Your task to perform on an android device: turn on the 12-hour format for clock Image 0: 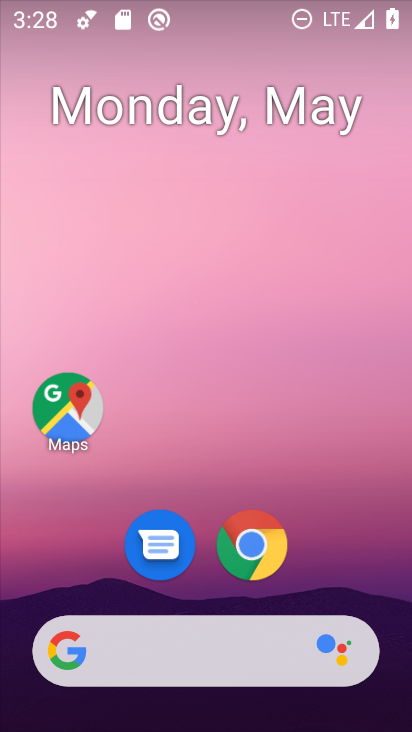
Step 0: drag from (330, 581) to (306, 154)
Your task to perform on an android device: turn on the 12-hour format for clock Image 1: 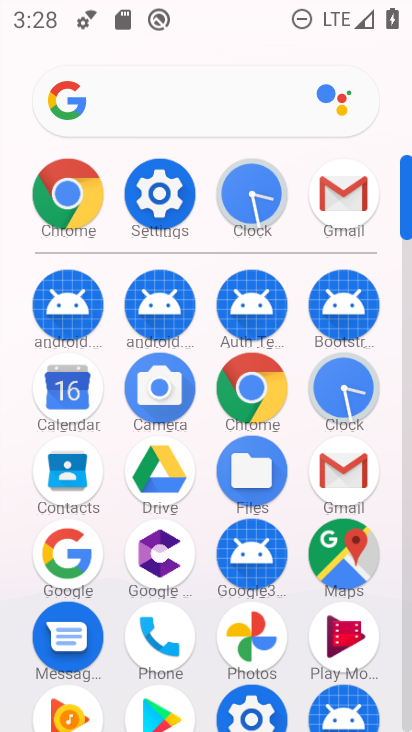
Step 1: click (345, 402)
Your task to perform on an android device: turn on the 12-hour format for clock Image 2: 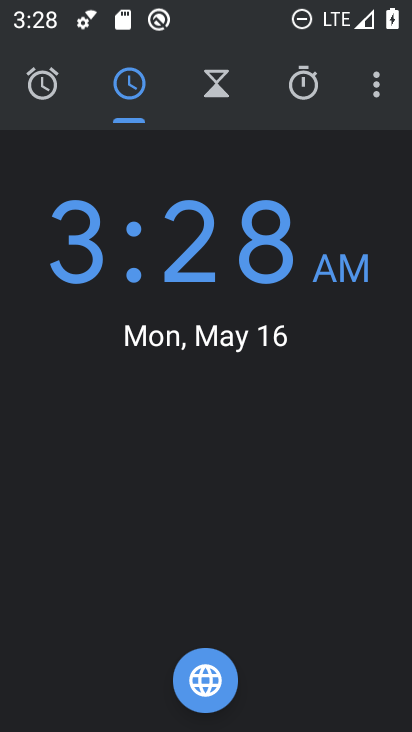
Step 2: click (369, 93)
Your task to perform on an android device: turn on the 12-hour format for clock Image 3: 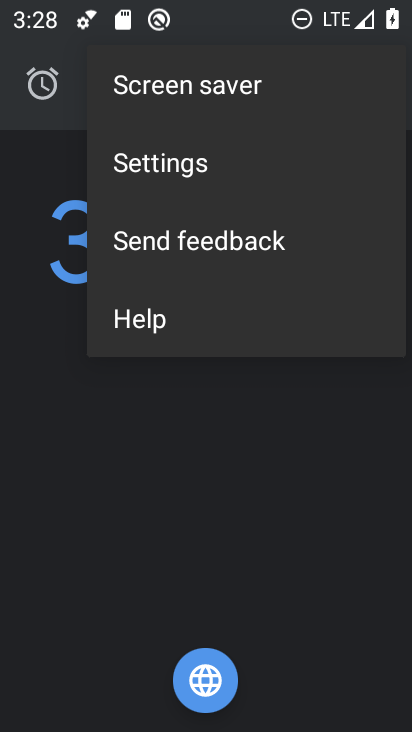
Step 3: click (196, 183)
Your task to perform on an android device: turn on the 12-hour format for clock Image 4: 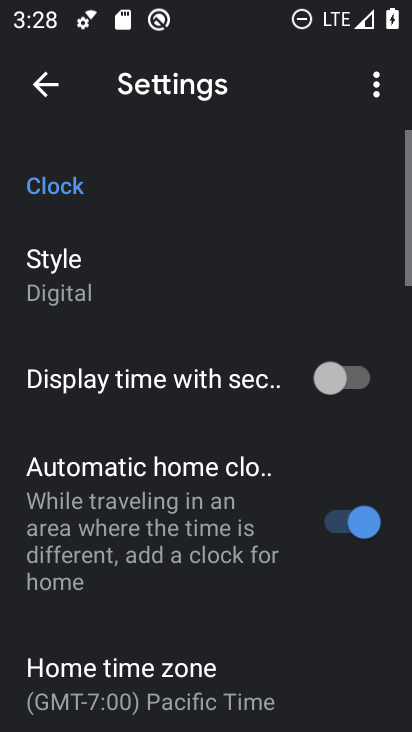
Step 4: drag from (252, 664) to (254, 304)
Your task to perform on an android device: turn on the 12-hour format for clock Image 5: 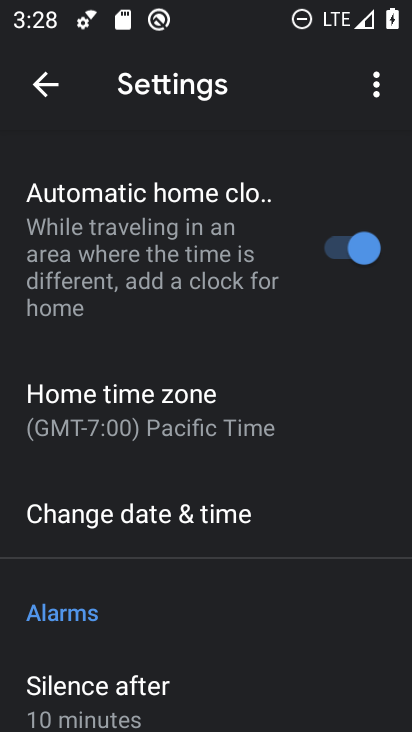
Step 5: click (209, 526)
Your task to perform on an android device: turn on the 12-hour format for clock Image 6: 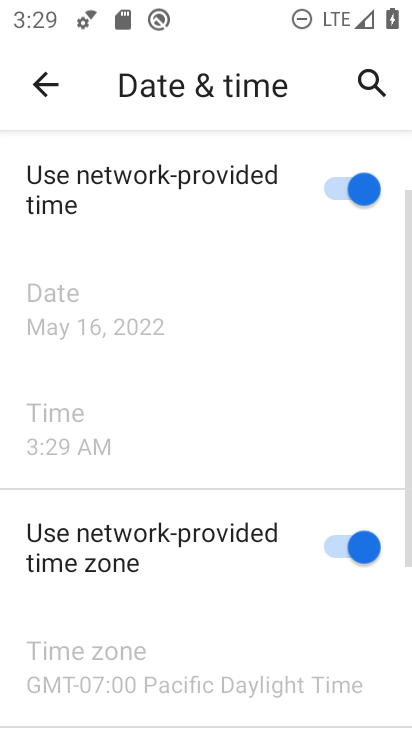
Step 6: task complete